Your task to perform on an android device: stop showing notifications on the lock screen Image 0: 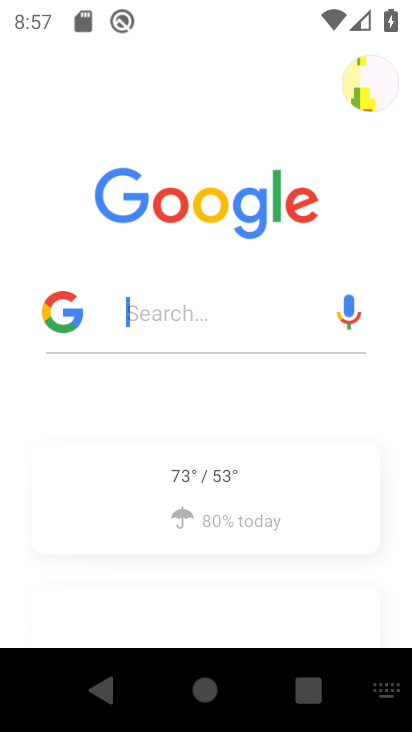
Step 0: press home button
Your task to perform on an android device: stop showing notifications on the lock screen Image 1: 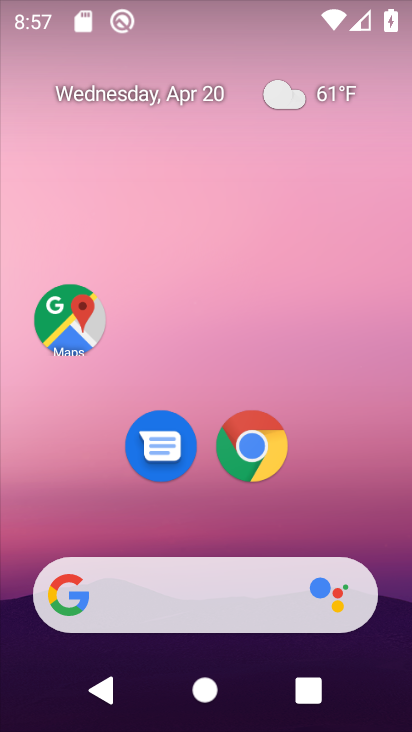
Step 1: drag from (355, 562) to (367, 159)
Your task to perform on an android device: stop showing notifications on the lock screen Image 2: 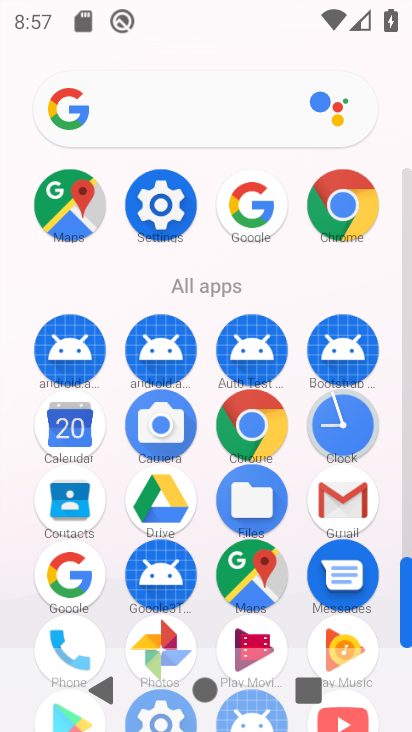
Step 2: click (160, 216)
Your task to perform on an android device: stop showing notifications on the lock screen Image 3: 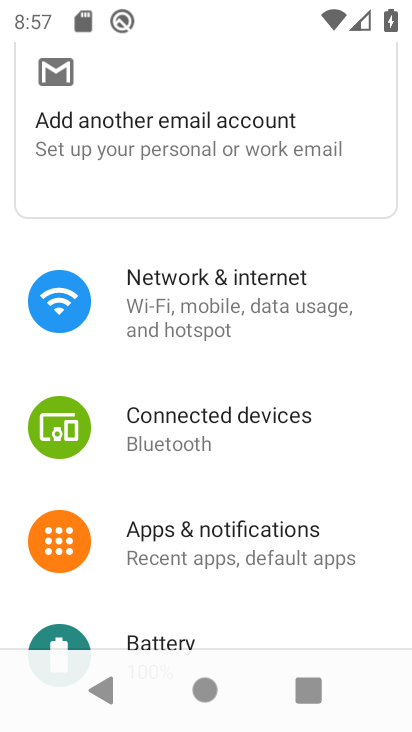
Step 3: click (254, 551)
Your task to perform on an android device: stop showing notifications on the lock screen Image 4: 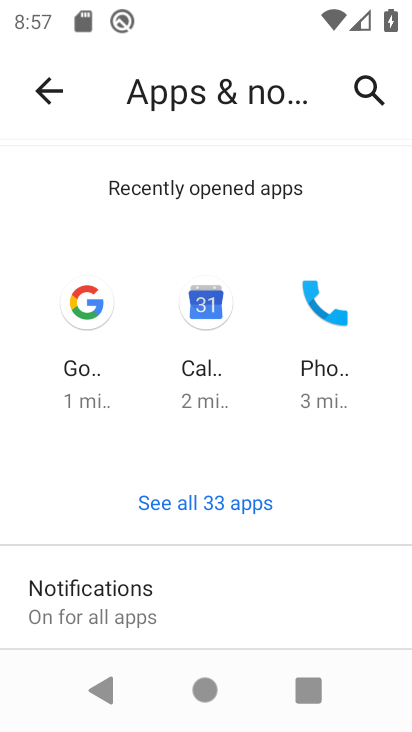
Step 4: click (143, 613)
Your task to perform on an android device: stop showing notifications on the lock screen Image 5: 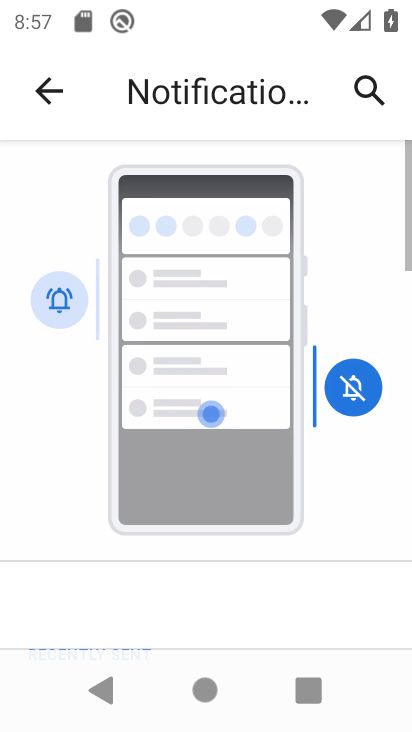
Step 5: drag from (287, 595) to (308, 112)
Your task to perform on an android device: stop showing notifications on the lock screen Image 6: 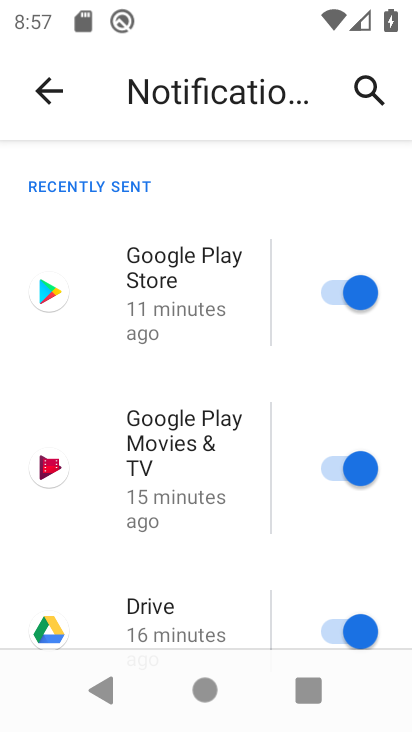
Step 6: drag from (228, 514) to (247, 184)
Your task to perform on an android device: stop showing notifications on the lock screen Image 7: 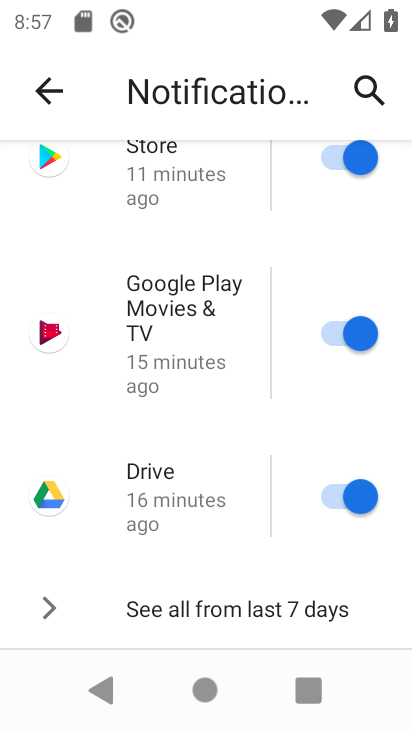
Step 7: drag from (241, 535) to (241, 228)
Your task to perform on an android device: stop showing notifications on the lock screen Image 8: 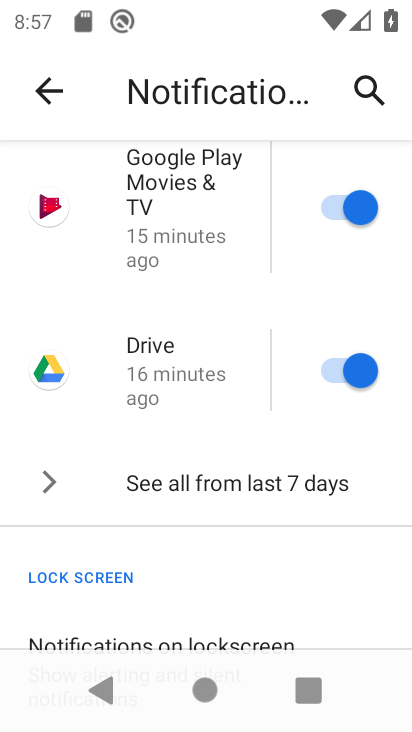
Step 8: drag from (229, 591) to (242, 250)
Your task to perform on an android device: stop showing notifications on the lock screen Image 9: 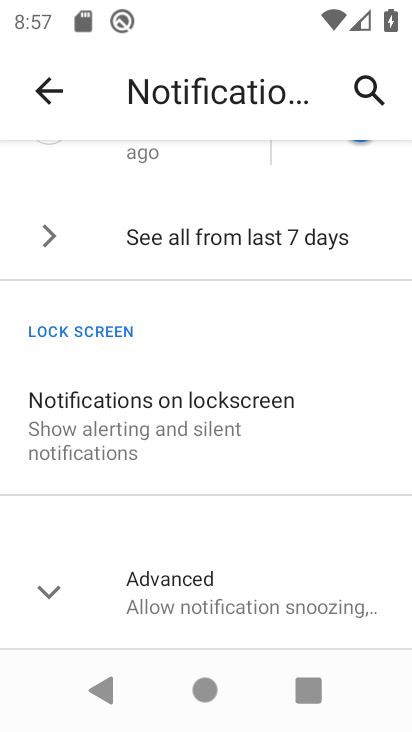
Step 9: click (200, 440)
Your task to perform on an android device: stop showing notifications on the lock screen Image 10: 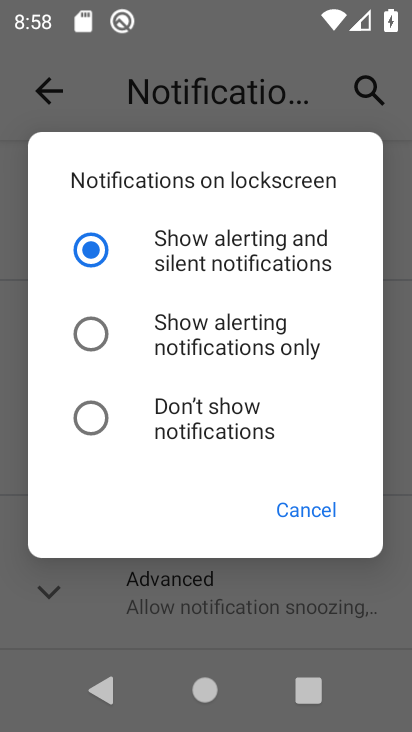
Step 10: click (188, 409)
Your task to perform on an android device: stop showing notifications on the lock screen Image 11: 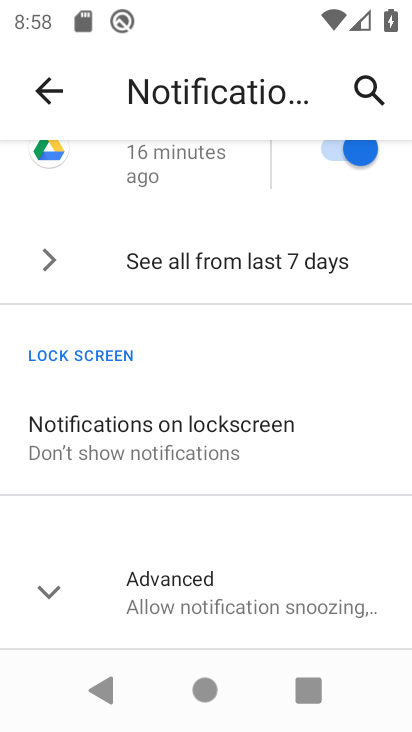
Step 11: task complete